Your task to perform on an android device: What is the news today? Image 0: 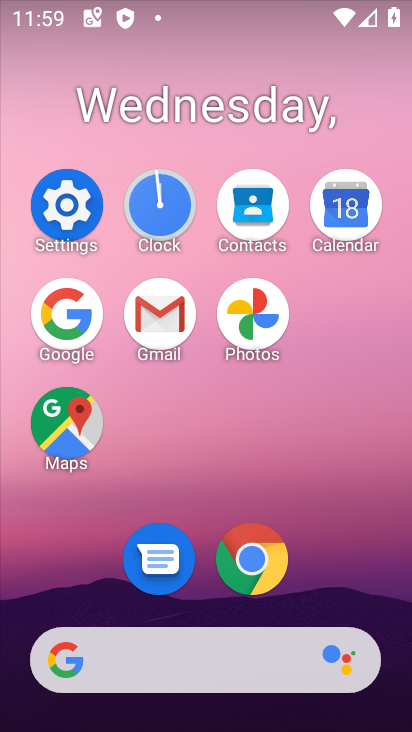
Step 0: click (62, 309)
Your task to perform on an android device: What is the news today? Image 1: 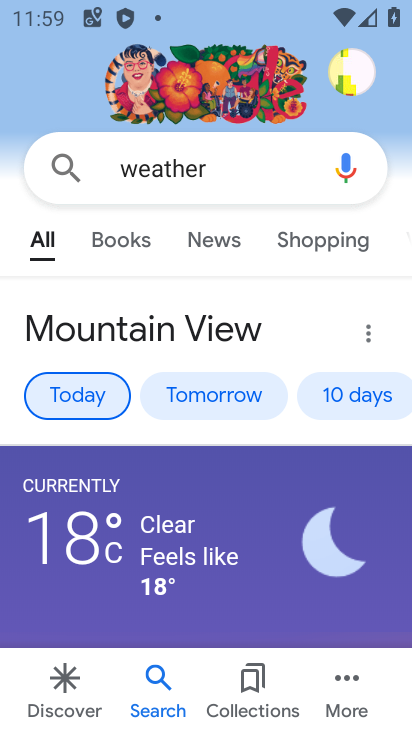
Step 1: click (173, 176)
Your task to perform on an android device: What is the news today? Image 2: 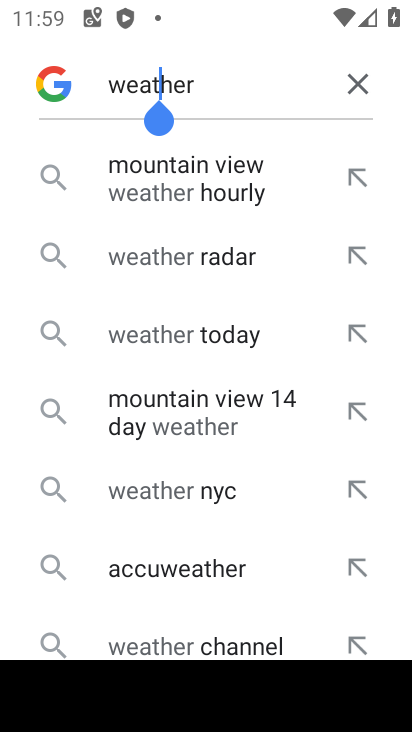
Step 2: click (363, 69)
Your task to perform on an android device: What is the news today? Image 3: 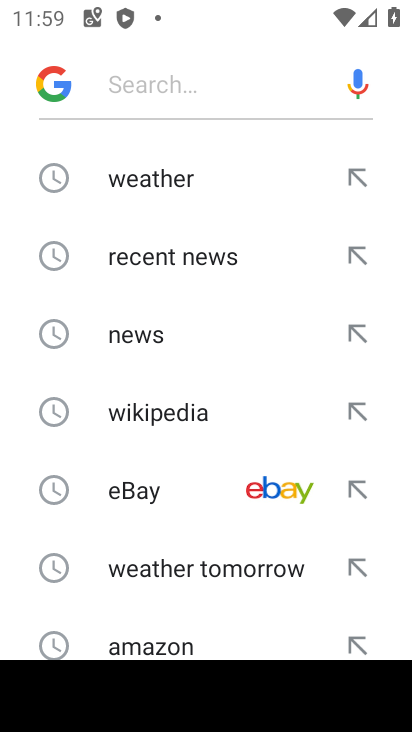
Step 3: click (149, 335)
Your task to perform on an android device: What is the news today? Image 4: 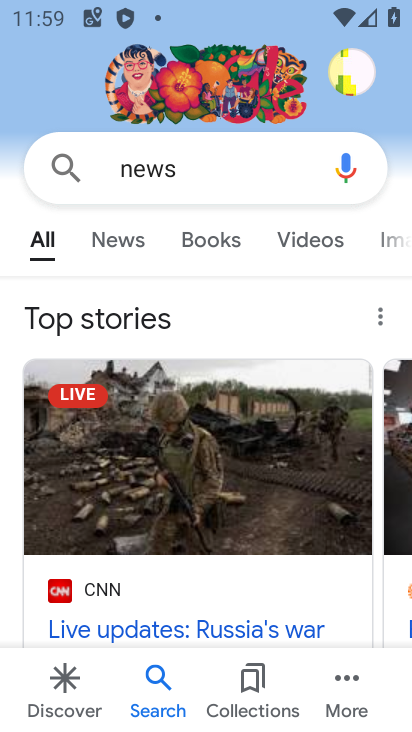
Step 4: task complete